Your task to perform on an android device: toggle data saver in the chrome app Image 0: 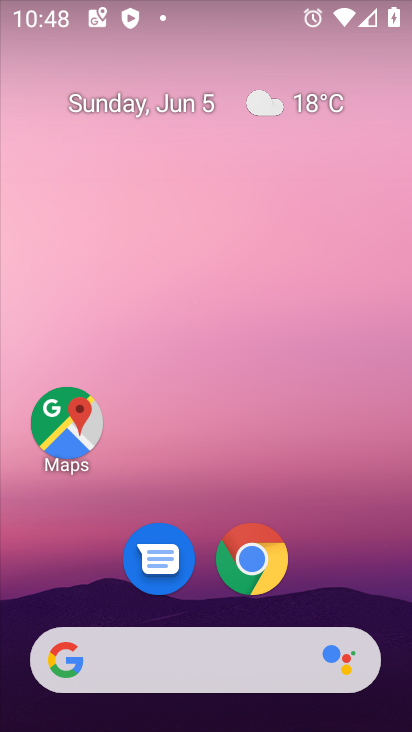
Step 0: click (236, 555)
Your task to perform on an android device: toggle data saver in the chrome app Image 1: 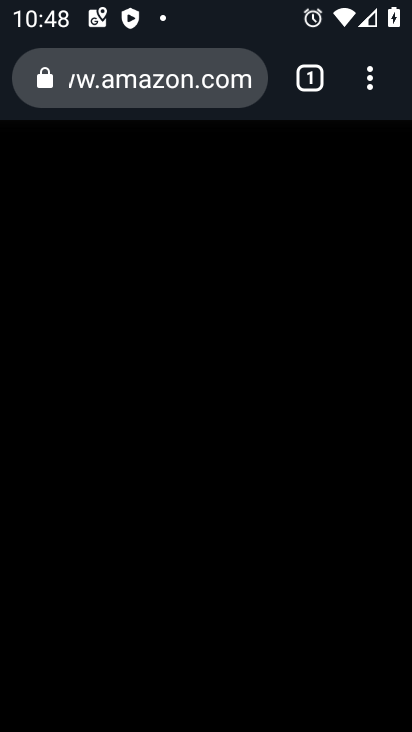
Step 1: click (372, 73)
Your task to perform on an android device: toggle data saver in the chrome app Image 2: 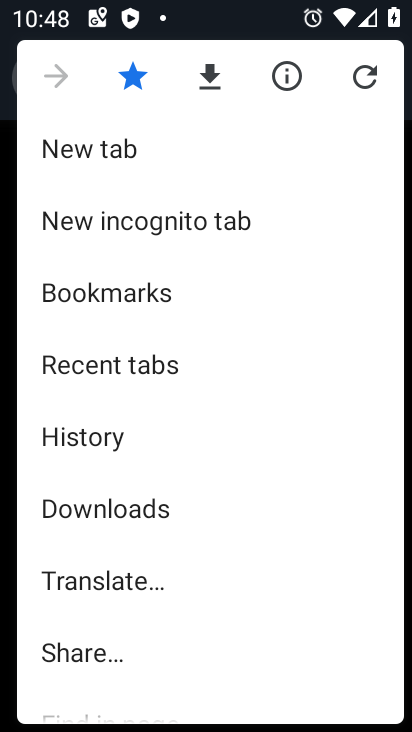
Step 2: drag from (197, 590) to (154, 361)
Your task to perform on an android device: toggle data saver in the chrome app Image 3: 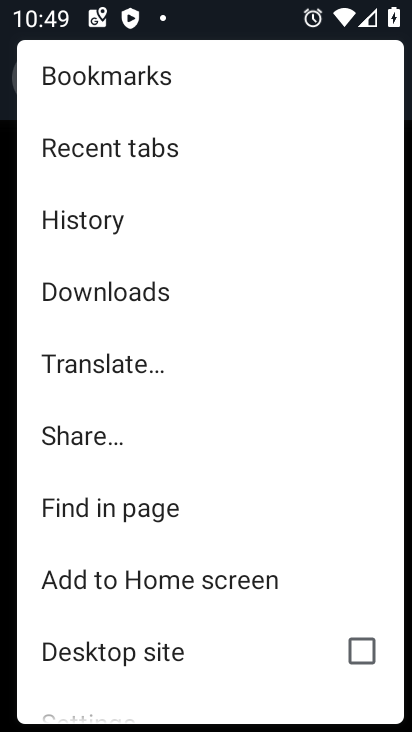
Step 3: drag from (144, 596) to (140, 294)
Your task to perform on an android device: toggle data saver in the chrome app Image 4: 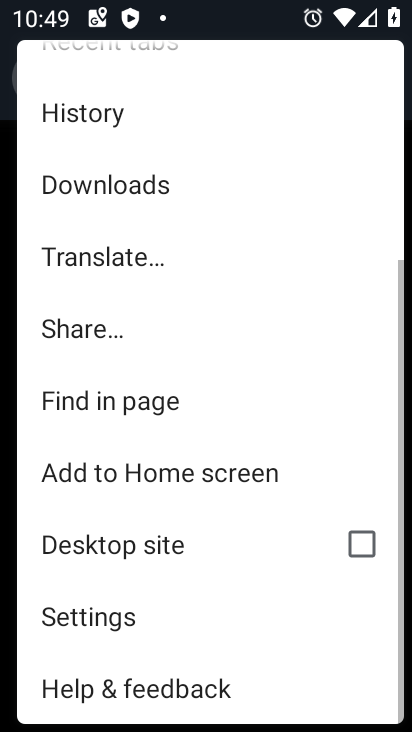
Step 4: click (131, 624)
Your task to perform on an android device: toggle data saver in the chrome app Image 5: 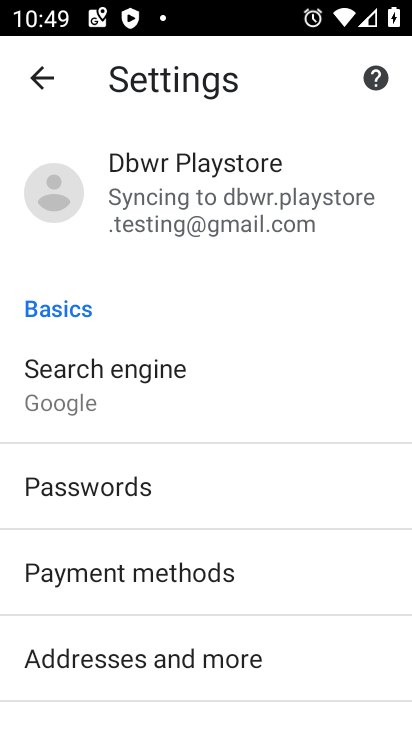
Step 5: drag from (299, 689) to (235, 215)
Your task to perform on an android device: toggle data saver in the chrome app Image 6: 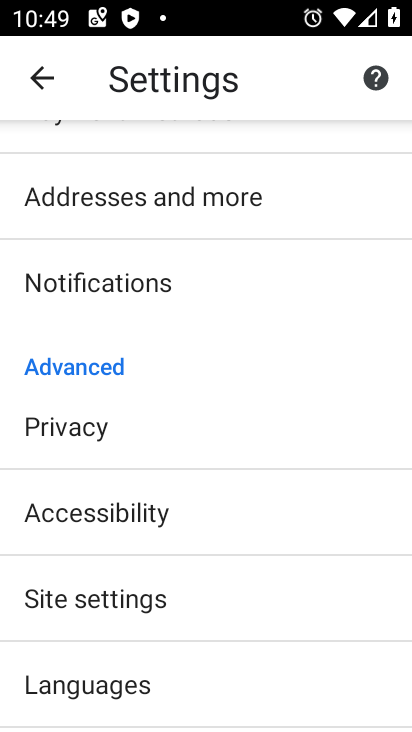
Step 6: drag from (260, 686) to (261, 301)
Your task to perform on an android device: toggle data saver in the chrome app Image 7: 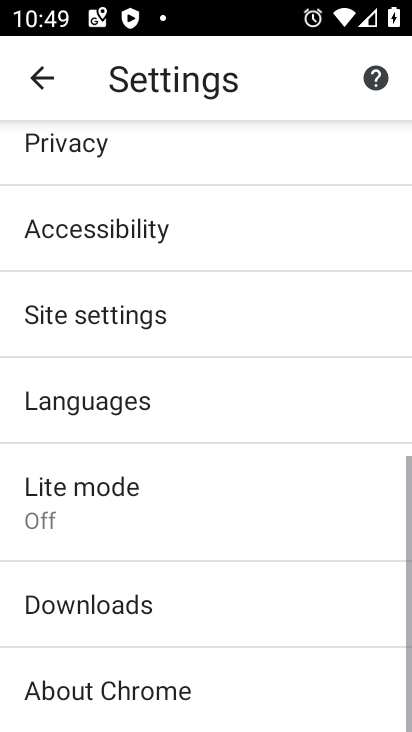
Step 7: click (71, 500)
Your task to perform on an android device: toggle data saver in the chrome app Image 8: 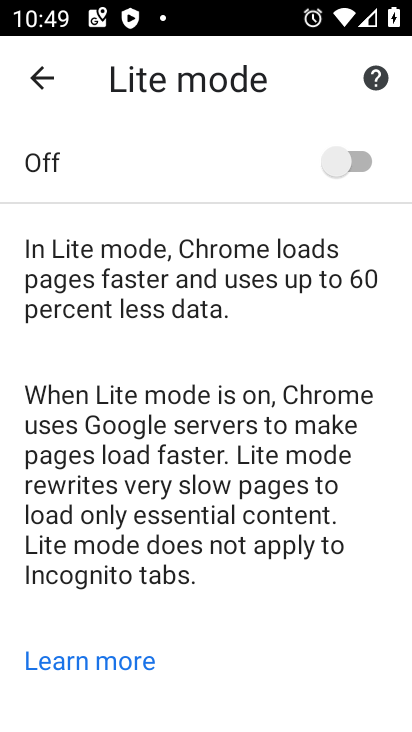
Step 8: click (360, 159)
Your task to perform on an android device: toggle data saver in the chrome app Image 9: 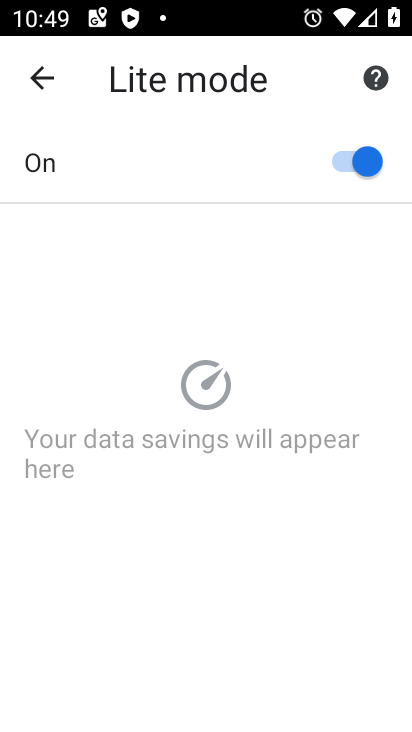
Step 9: task complete